Your task to perform on an android device: change notifications settings Image 0: 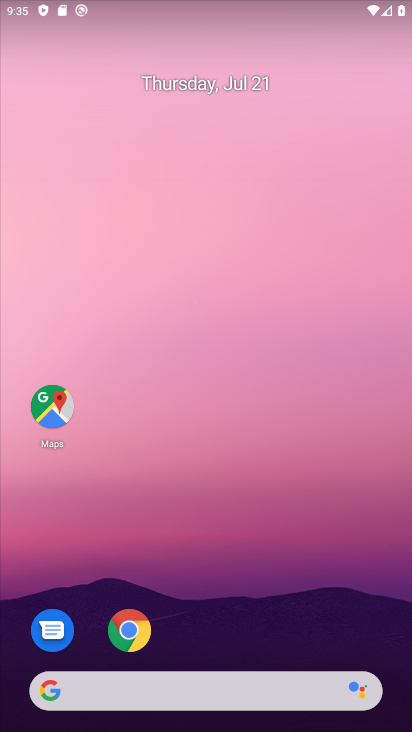
Step 0: drag from (300, 590) to (288, 47)
Your task to perform on an android device: change notifications settings Image 1: 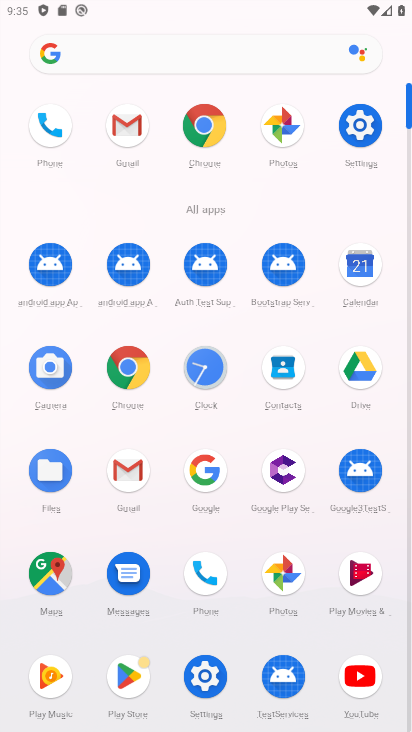
Step 1: click (354, 130)
Your task to perform on an android device: change notifications settings Image 2: 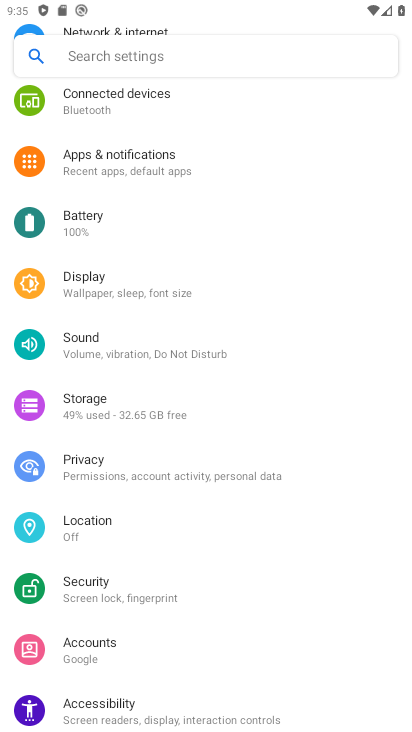
Step 2: click (99, 171)
Your task to perform on an android device: change notifications settings Image 3: 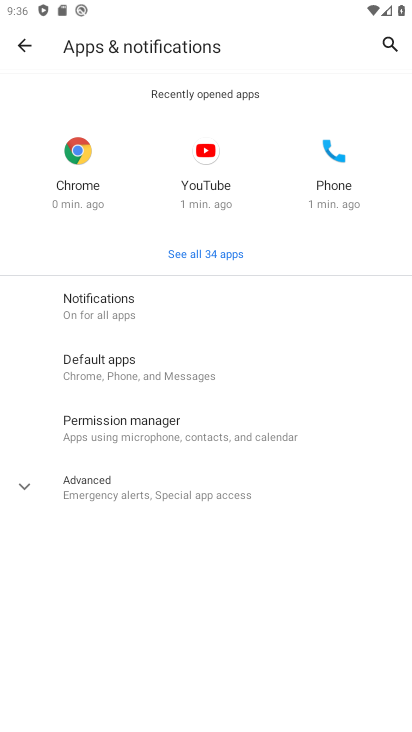
Step 3: click (150, 314)
Your task to perform on an android device: change notifications settings Image 4: 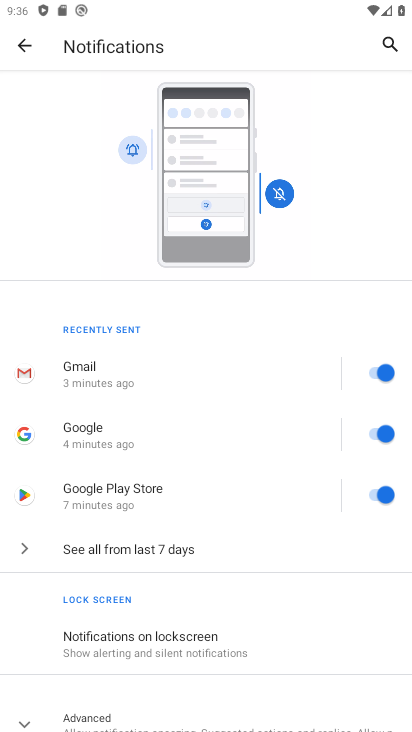
Step 4: drag from (214, 566) to (117, 156)
Your task to perform on an android device: change notifications settings Image 5: 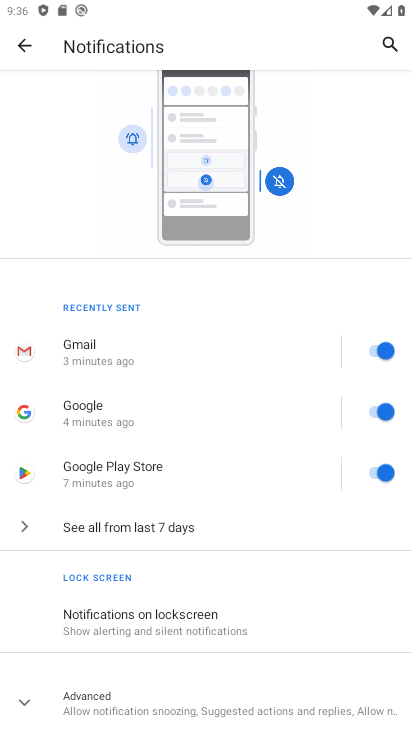
Step 5: click (198, 523)
Your task to perform on an android device: change notifications settings Image 6: 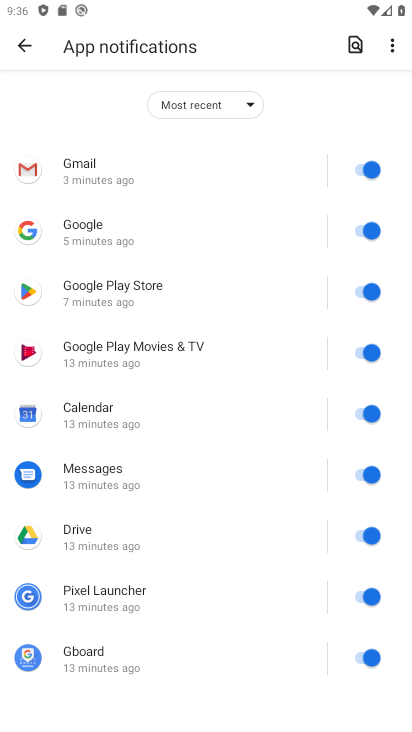
Step 6: click (384, 164)
Your task to perform on an android device: change notifications settings Image 7: 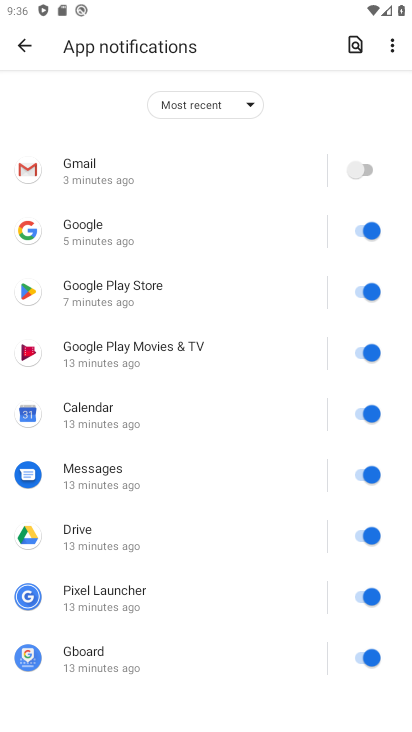
Step 7: click (376, 232)
Your task to perform on an android device: change notifications settings Image 8: 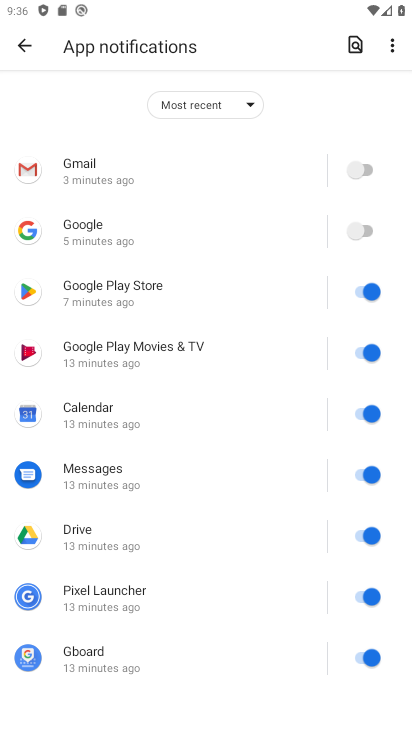
Step 8: click (382, 293)
Your task to perform on an android device: change notifications settings Image 9: 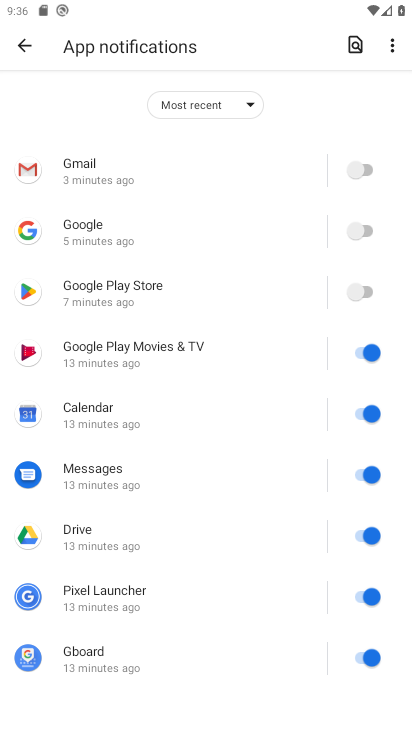
Step 9: click (385, 345)
Your task to perform on an android device: change notifications settings Image 10: 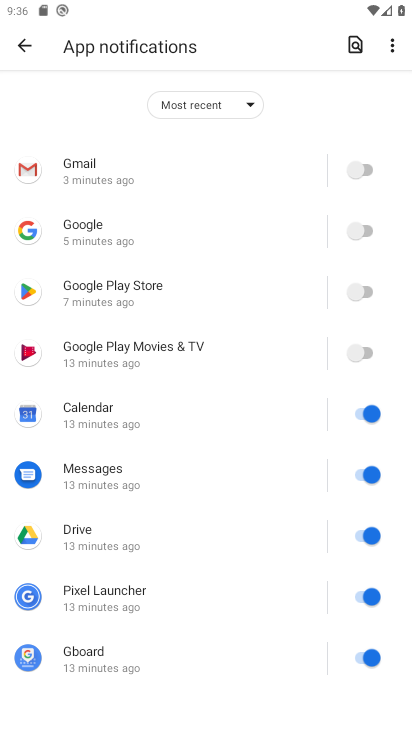
Step 10: click (377, 417)
Your task to perform on an android device: change notifications settings Image 11: 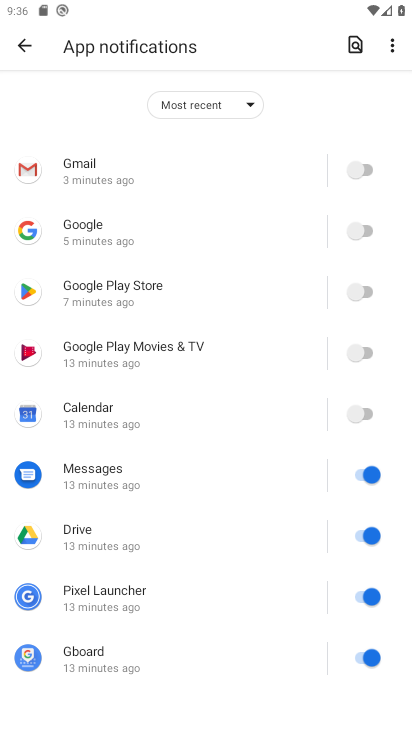
Step 11: click (372, 479)
Your task to perform on an android device: change notifications settings Image 12: 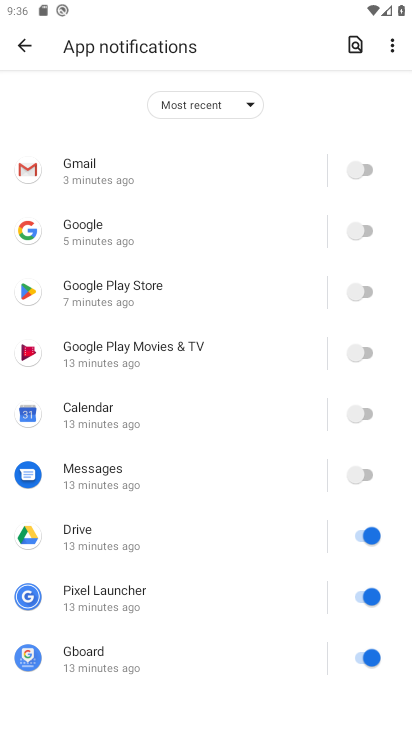
Step 12: click (372, 534)
Your task to perform on an android device: change notifications settings Image 13: 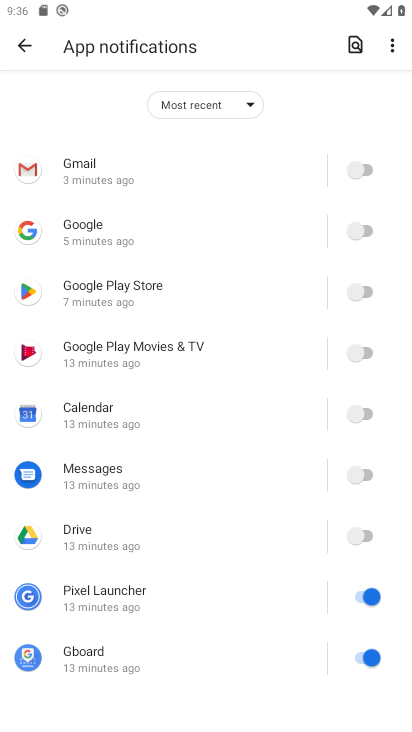
Step 13: click (374, 595)
Your task to perform on an android device: change notifications settings Image 14: 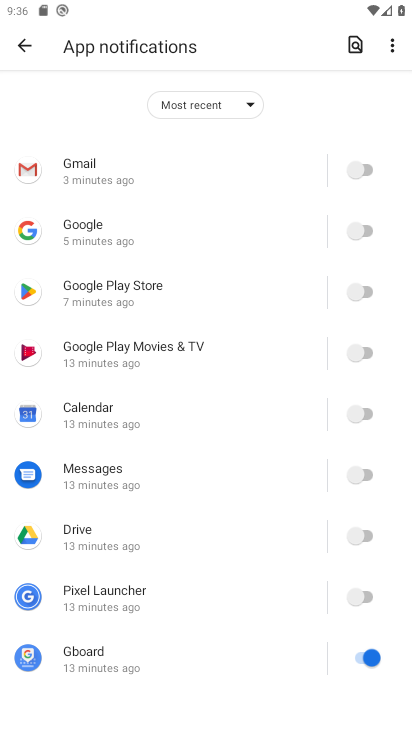
Step 14: click (374, 649)
Your task to perform on an android device: change notifications settings Image 15: 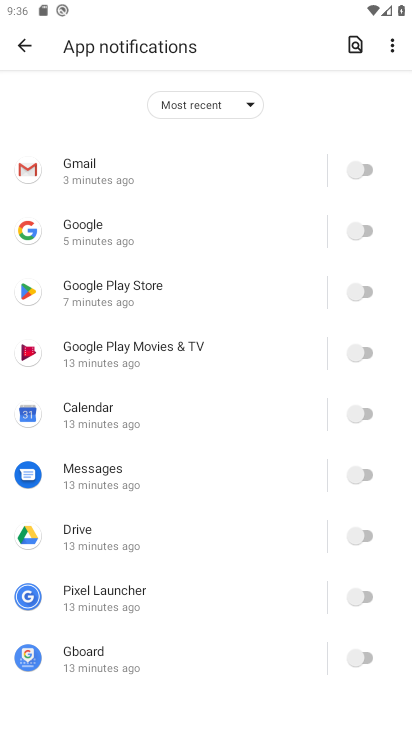
Step 15: drag from (186, 667) to (175, 197)
Your task to perform on an android device: change notifications settings Image 16: 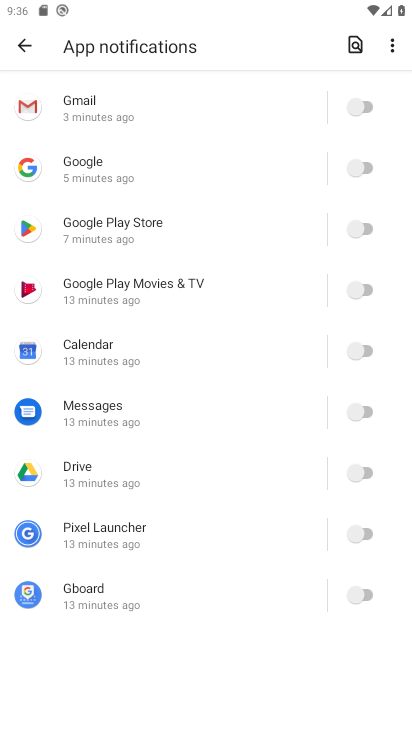
Step 16: click (35, 48)
Your task to perform on an android device: change notifications settings Image 17: 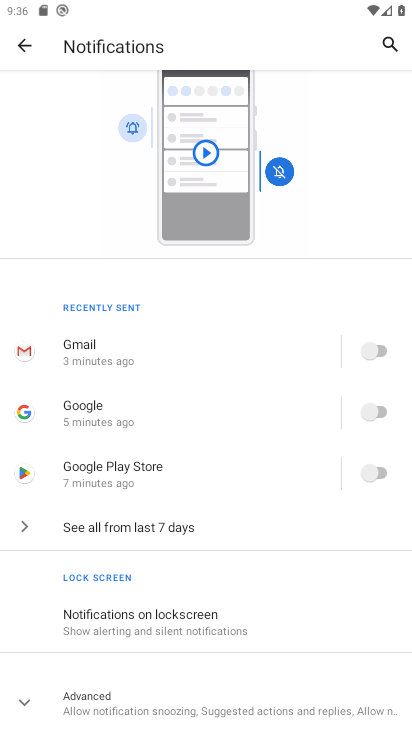
Step 17: click (135, 616)
Your task to perform on an android device: change notifications settings Image 18: 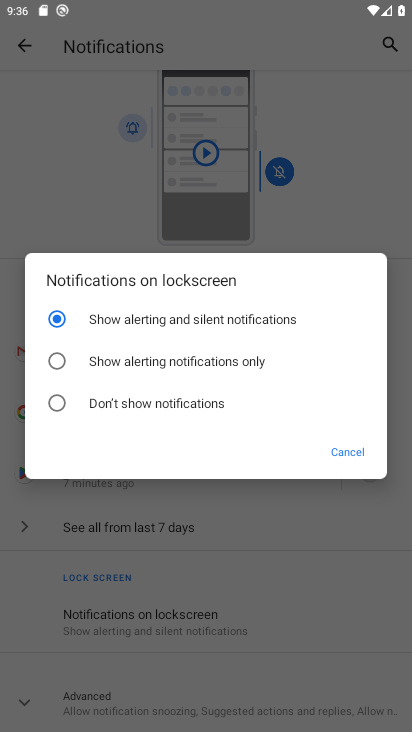
Step 18: click (152, 360)
Your task to perform on an android device: change notifications settings Image 19: 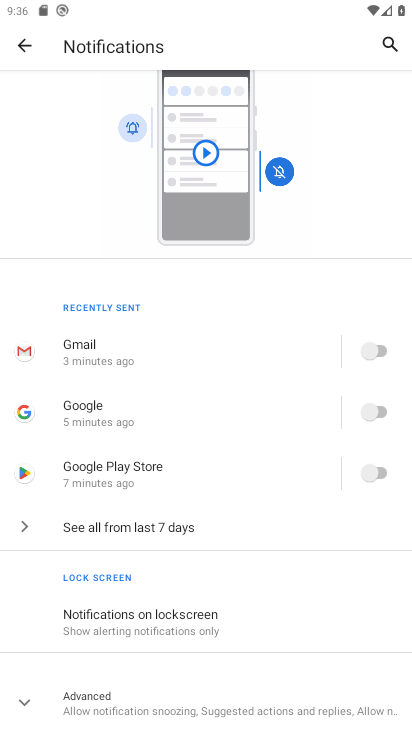
Step 19: click (149, 695)
Your task to perform on an android device: change notifications settings Image 20: 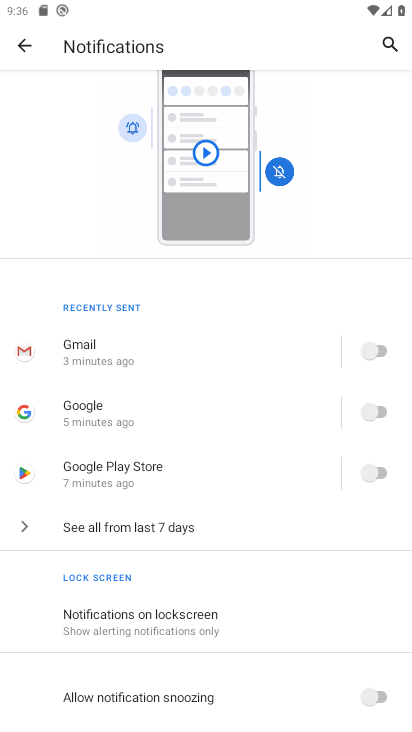
Step 20: drag from (178, 642) to (160, 237)
Your task to perform on an android device: change notifications settings Image 21: 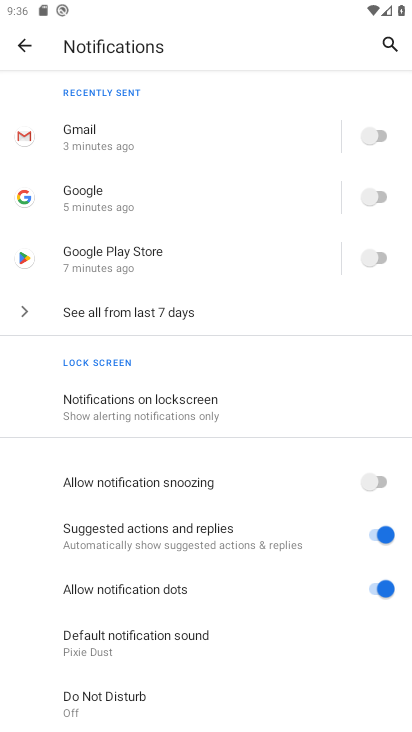
Step 21: click (360, 465)
Your task to perform on an android device: change notifications settings Image 22: 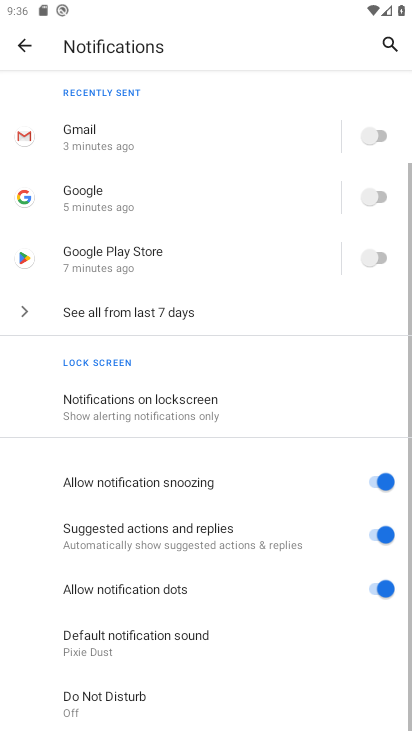
Step 22: click (335, 526)
Your task to perform on an android device: change notifications settings Image 23: 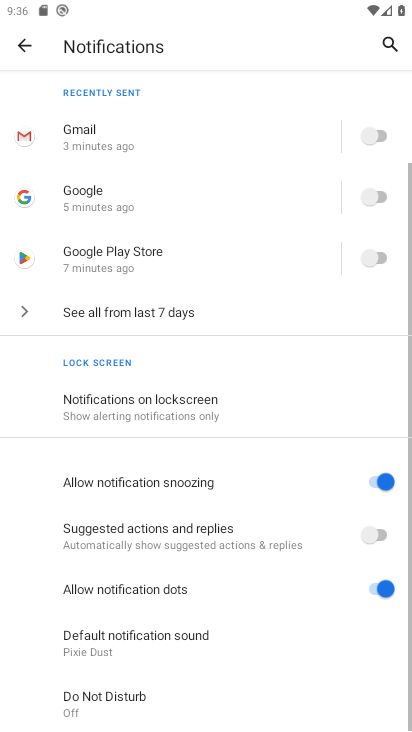
Step 23: click (387, 581)
Your task to perform on an android device: change notifications settings Image 24: 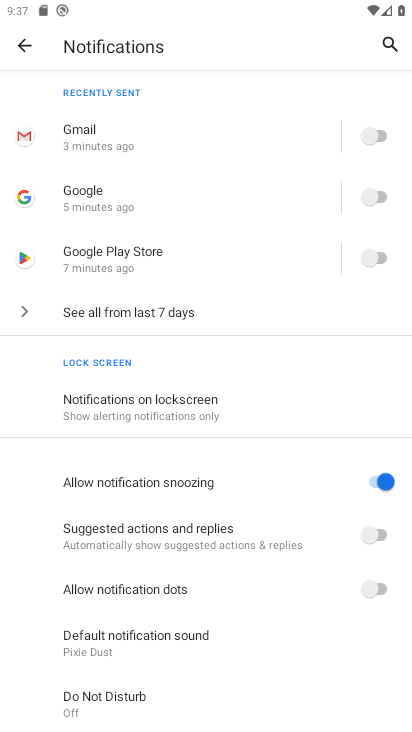
Step 24: task complete